Your task to perform on an android device: Open the Play Movies app and select the watchlist tab. Image 0: 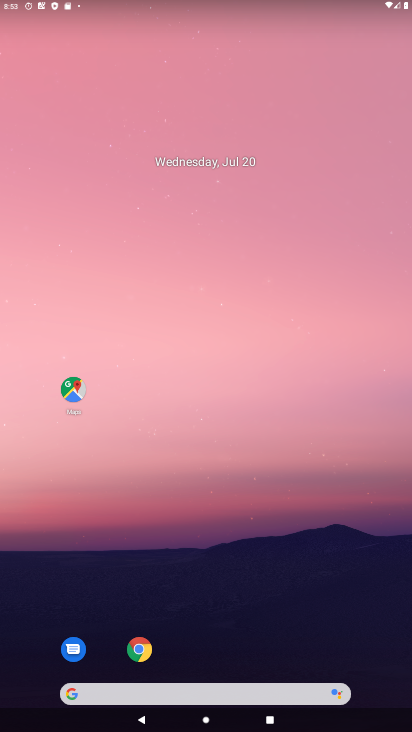
Step 0: drag from (200, 688) to (206, 141)
Your task to perform on an android device: Open the Play Movies app and select the watchlist tab. Image 1: 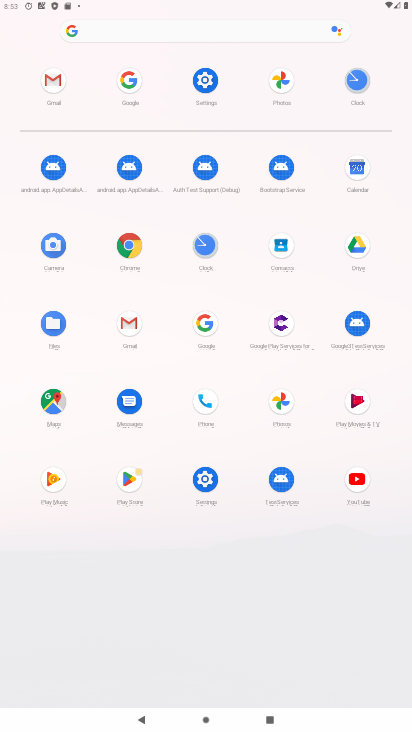
Step 1: click (357, 402)
Your task to perform on an android device: Open the Play Movies app and select the watchlist tab. Image 2: 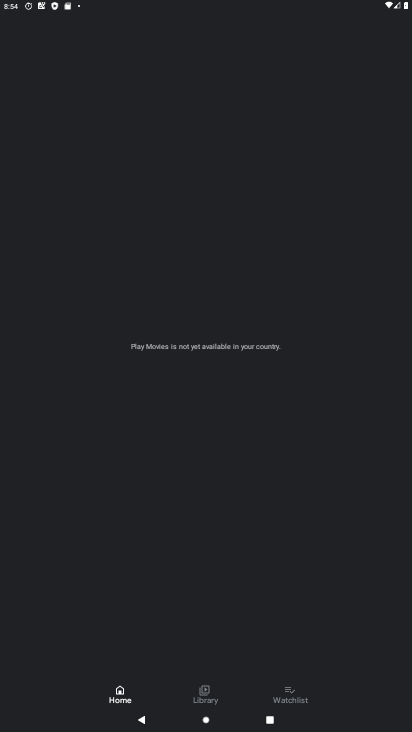
Step 2: click (289, 696)
Your task to perform on an android device: Open the Play Movies app and select the watchlist tab. Image 3: 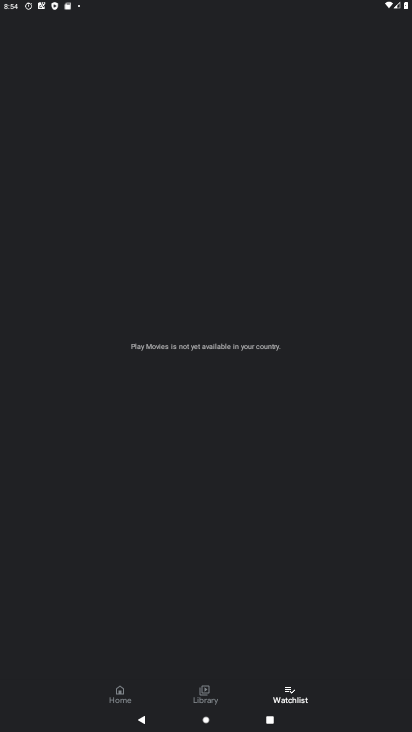
Step 3: task complete